Your task to perform on an android device: Clear all items from cart on newegg. Search for "macbook air" on newegg, select the first entry, add it to the cart, then select checkout. Image 0: 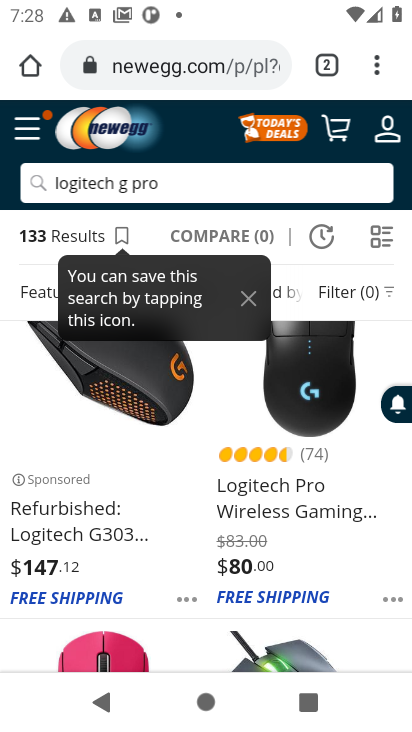
Step 0: click (341, 128)
Your task to perform on an android device: Clear all items from cart on newegg. Search for "macbook air" on newegg, select the first entry, add it to the cart, then select checkout. Image 1: 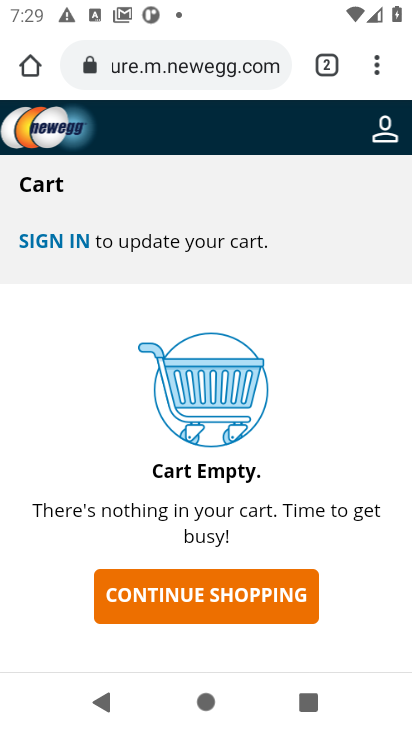
Step 1: click (205, 610)
Your task to perform on an android device: Clear all items from cart on newegg. Search for "macbook air" on newegg, select the first entry, add it to the cart, then select checkout. Image 2: 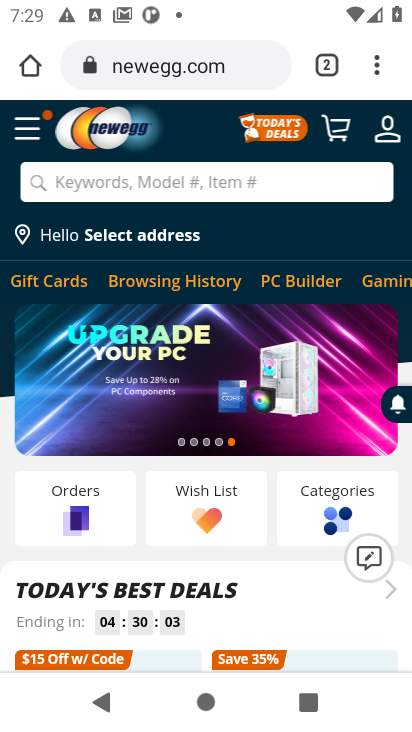
Step 2: click (162, 192)
Your task to perform on an android device: Clear all items from cart on newegg. Search for "macbook air" on newegg, select the first entry, add it to the cart, then select checkout. Image 3: 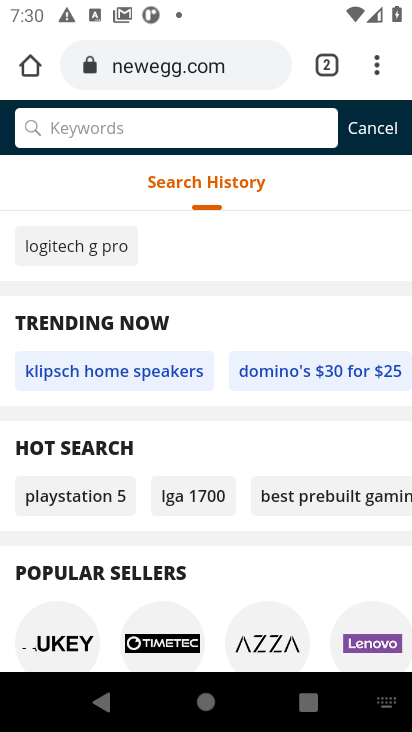
Step 3: type "macbook air"
Your task to perform on an android device: Clear all items from cart on newegg. Search for "macbook air" on newegg, select the first entry, add it to the cart, then select checkout. Image 4: 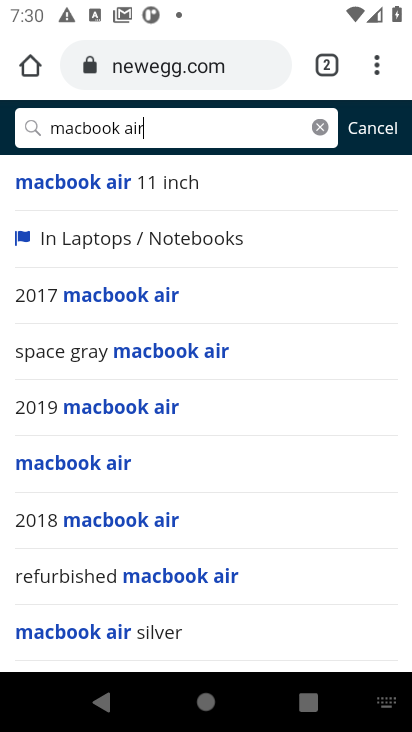
Step 4: click (73, 465)
Your task to perform on an android device: Clear all items from cart on newegg. Search for "macbook air" on newegg, select the first entry, add it to the cart, then select checkout. Image 5: 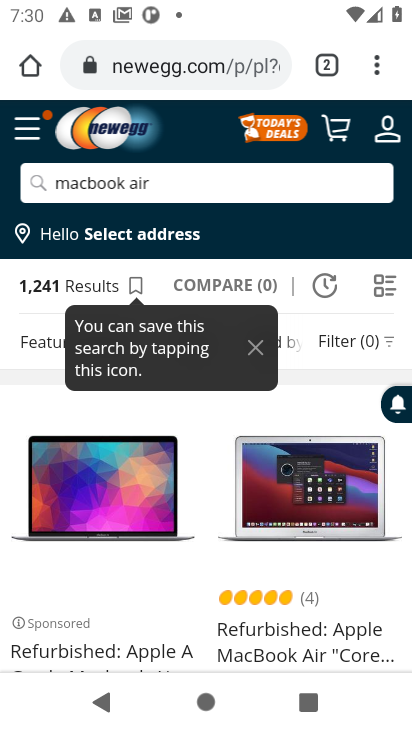
Step 5: drag from (205, 554) to (204, 384)
Your task to perform on an android device: Clear all items from cart on newegg. Search for "macbook air" on newegg, select the first entry, add it to the cart, then select checkout. Image 6: 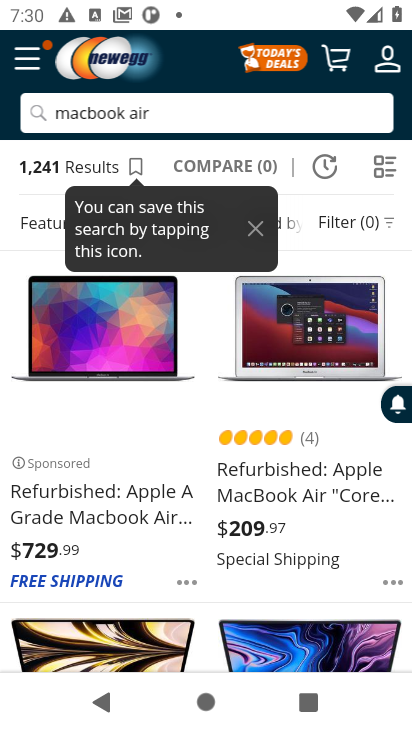
Step 6: click (120, 503)
Your task to perform on an android device: Clear all items from cart on newegg. Search for "macbook air" on newegg, select the first entry, add it to the cart, then select checkout. Image 7: 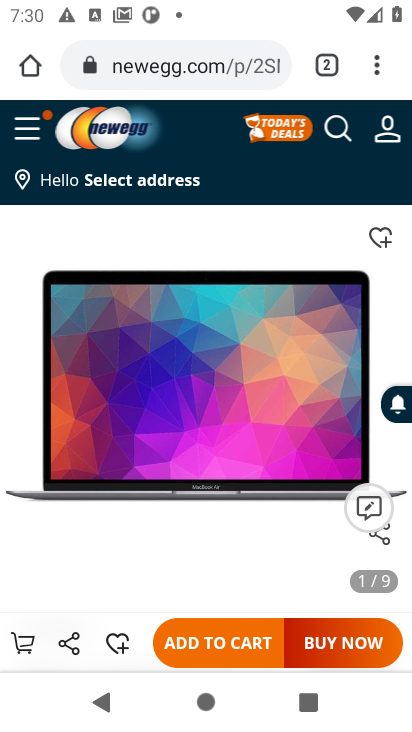
Step 7: drag from (121, 537) to (120, 235)
Your task to perform on an android device: Clear all items from cart on newegg. Search for "macbook air" on newegg, select the first entry, add it to the cart, then select checkout. Image 8: 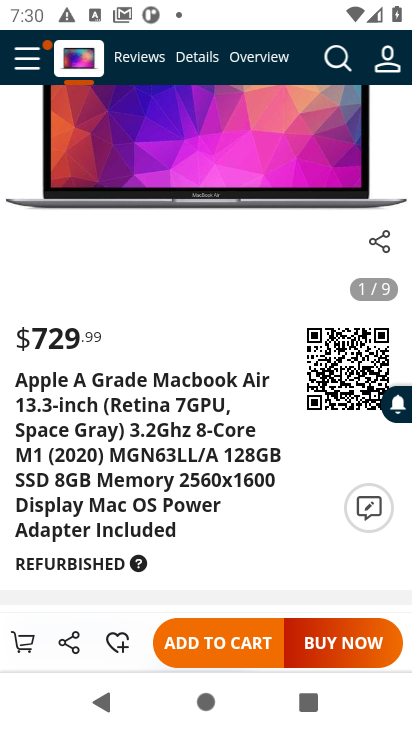
Step 8: click (220, 649)
Your task to perform on an android device: Clear all items from cart on newegg. Search for "macbook air" on newegg, select the first entry, add it to the cart, then select checkout. Image 9: 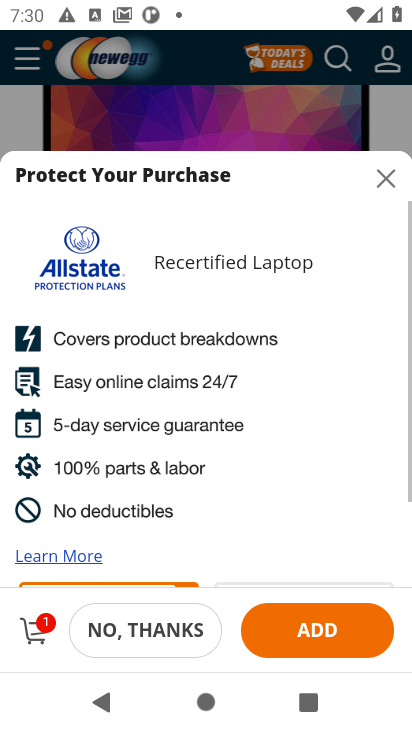
Step 9: click (29, 631)
Your task to perform on an android device: Clear all items from cart on newegg. Search for "macbook air" on newegg, select the first entry, add it to the cart, then select checkout. Image 10: 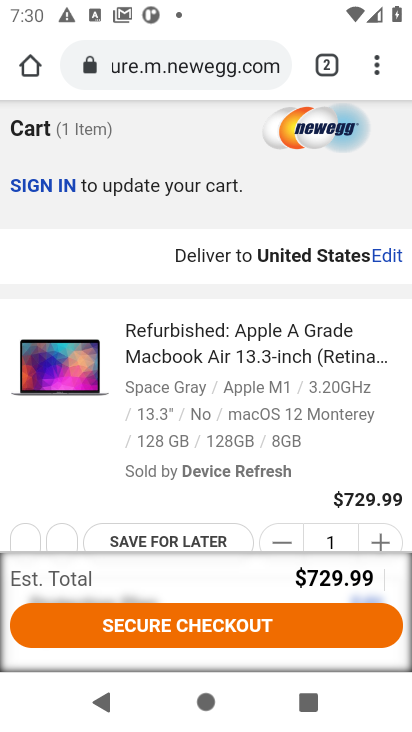
Step 10: click (139, 628)
Your task to perform on an android device: Clear all items from cart on newegg. Search for "macbook air" on newegg, select the first entry, add it to the cart, then select checkout. Image 11: 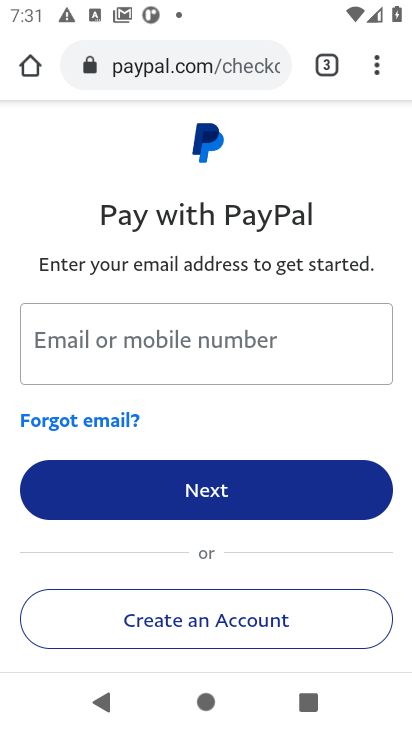
Step 11: task complete